Your task to perform on an android device: Is it going to rain today? Image 0: 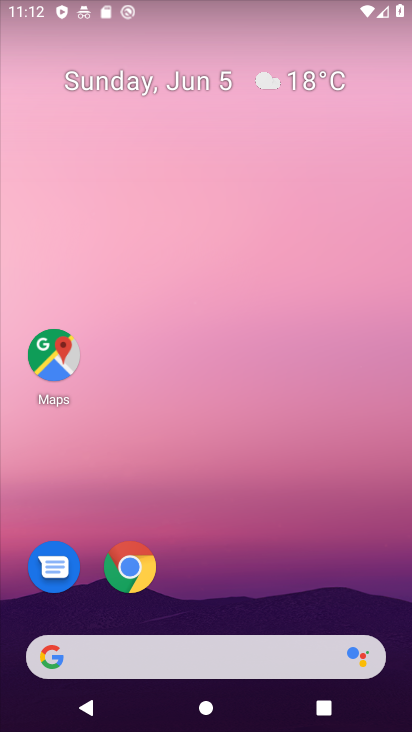
Step 0: click (272, 83)
Your task to perform on an android device: Is it going to rain today? Image 1: 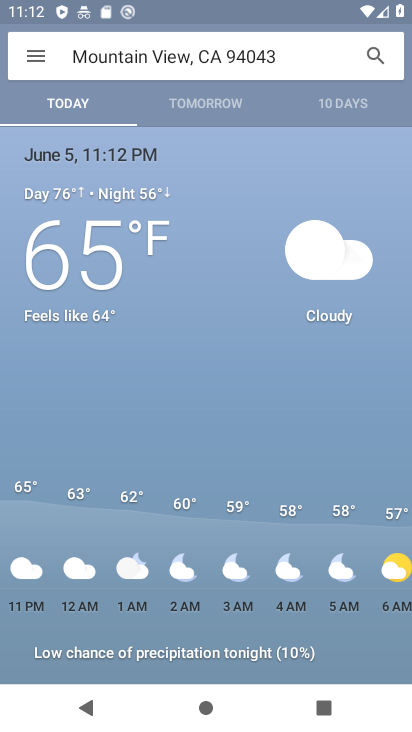
Step 1: task complete